Your task to perform on an android device: Open sound settings Image 0: 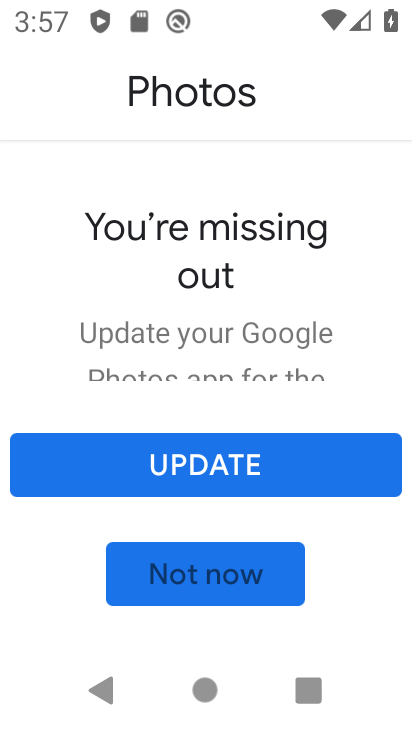
Step 0: press back button
Your task to perform on an android device: Open sound settings Image 1: 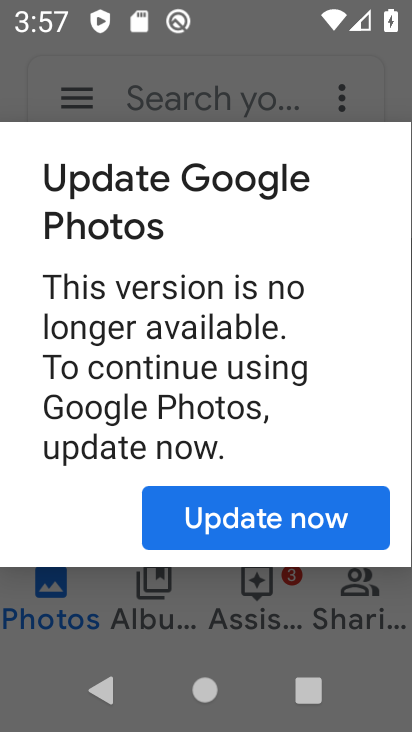
Step 1: press home button
Your task to perform on an android device: Open sound settings Image 2: 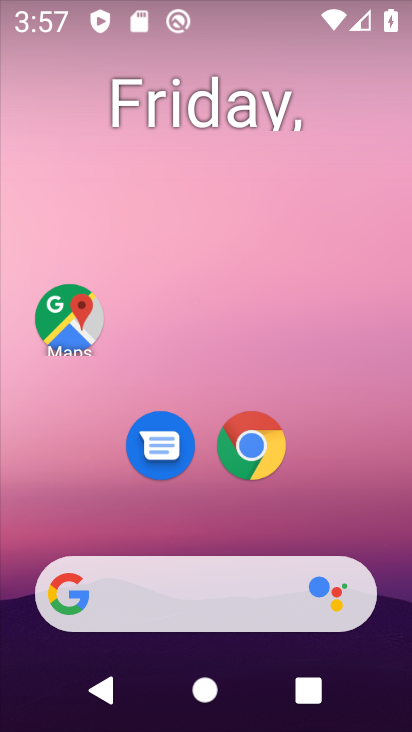
Step 2: drag from (335, 486) to (315, 23)
Your task to perform on an android device: Open sound settings Image 3: 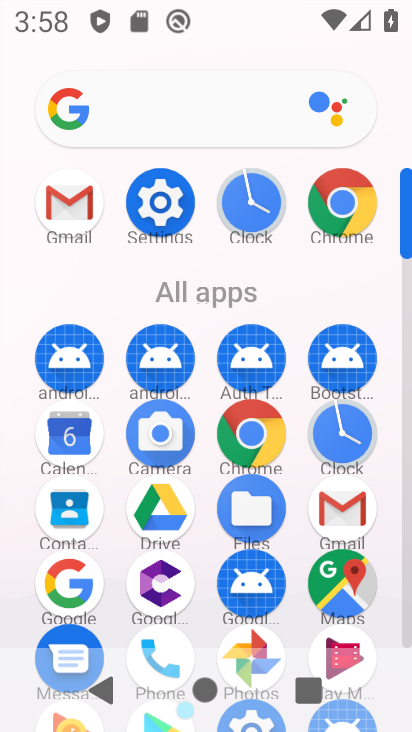
Step 3: click (157, 197)
Your task to perform on an android device: Open sound settings Image 4: 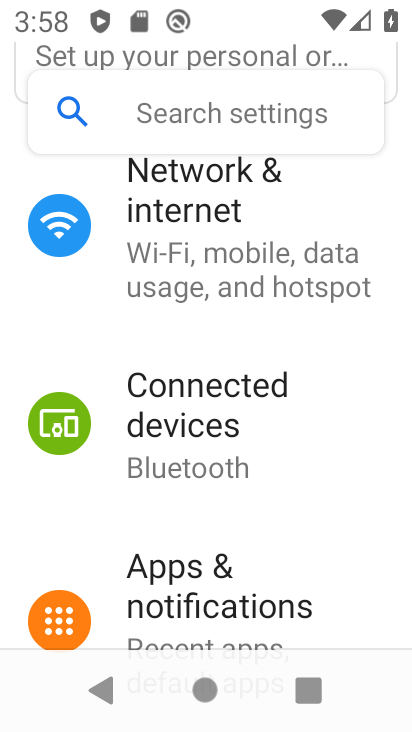
Step 4: drag from (304, 252) to (342, 252)
Your task to perform on an android device: Open sound settings Image 5: 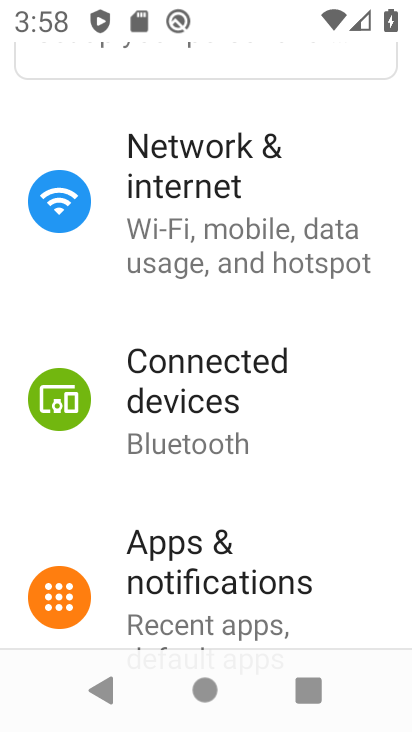
Step 5: drag from (325, 550) to (314, 161)
Your task to perform on an android device: Open sound settings Image 6: 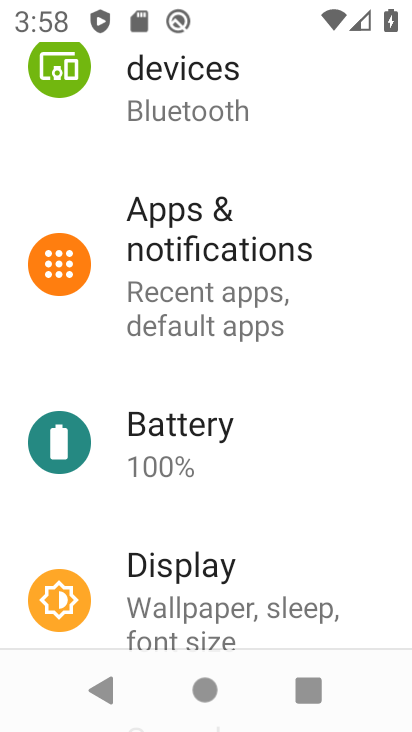
Step 6: drag from (285, 518) to (282, 126)
Your task to perform on an android device: Open sound settings Image 7: 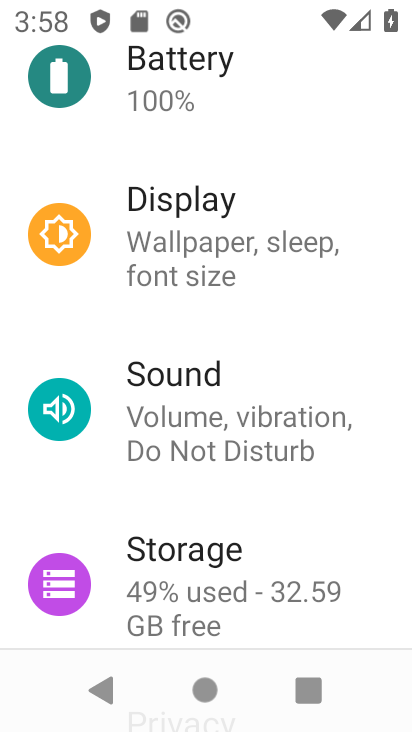
Step 7: click (252, 425)
Your task to perform on an android device: Open sound settings Image 8: 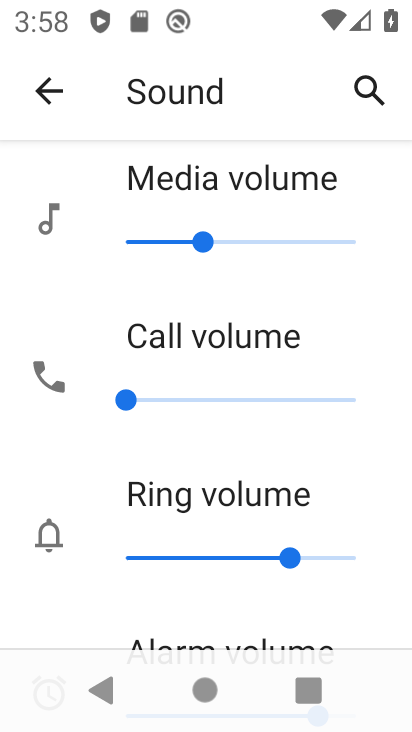
Step 8: task complete